Your task to perform on an android device: change notifications settings Image 0: 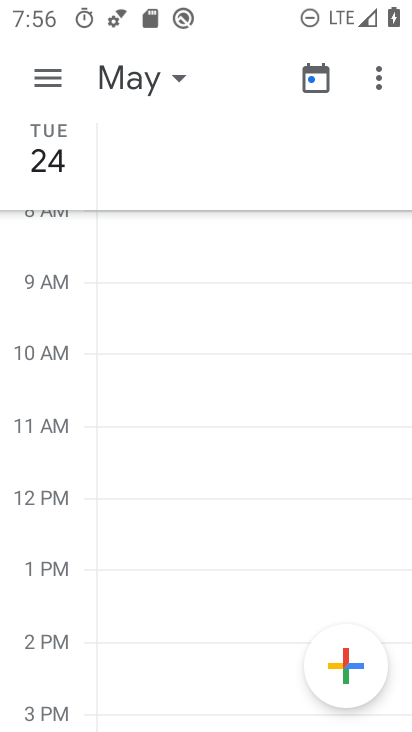
Step 0: press home button
Your task to perform on an android device: change notifications settings Image 1: 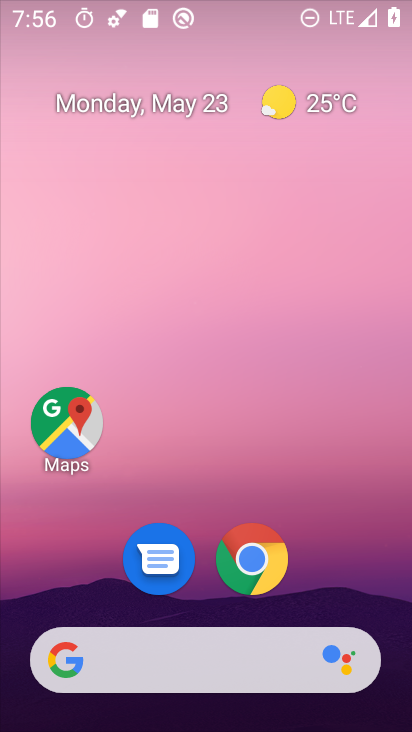
Step 1: drag from (393, 647) to (307, 32)
Your task to perform on an android device: change notifications settings Image 2: 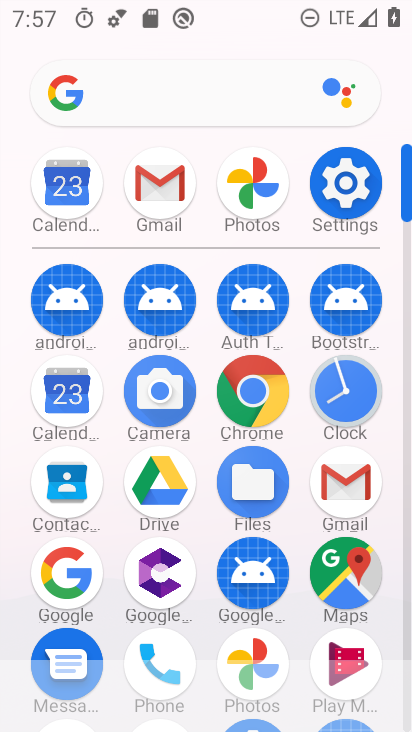
Step 2: click (363, 184)
Your task to perform on an android device: change notifications settings Image 3: 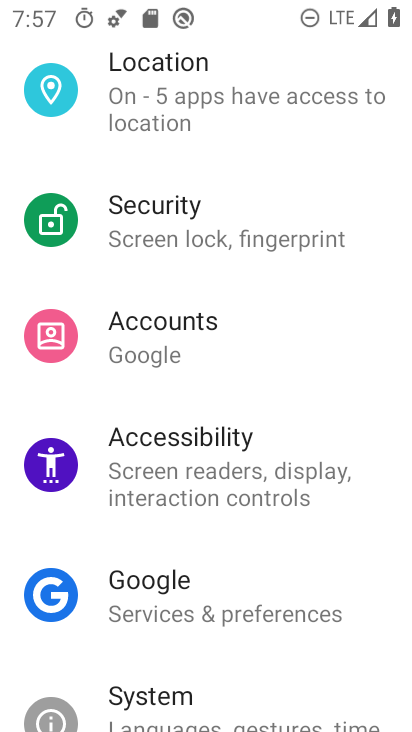
Step 3: drag from (193, 107) to (178, 661)
Your task to perform on an android device: change notifications settings Image 4: 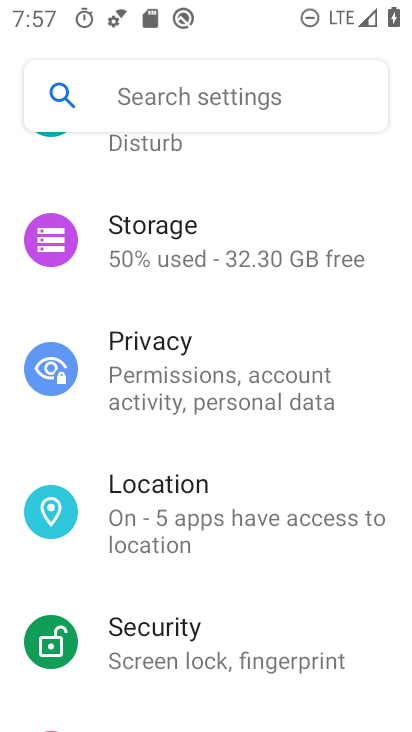
Step 4: drag from (235, 162) to (252, 671)
Your task to perform on an android device: change notifications settings Image 5: 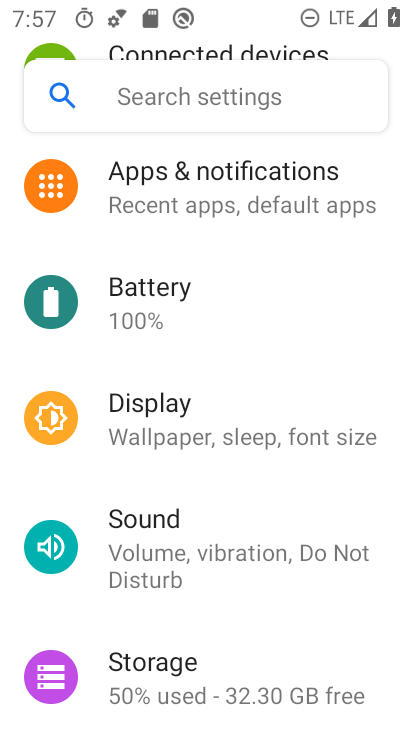
Step 5: click (241, 198)
Your task to perform on an android device: change notifications settings Image 6: 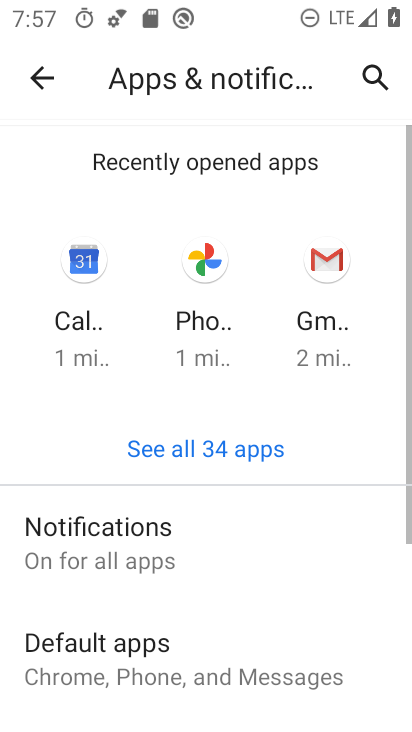
Step 6: task complete